Your task to perform on an android device: Open Chrome and go to the settings page Image 0: 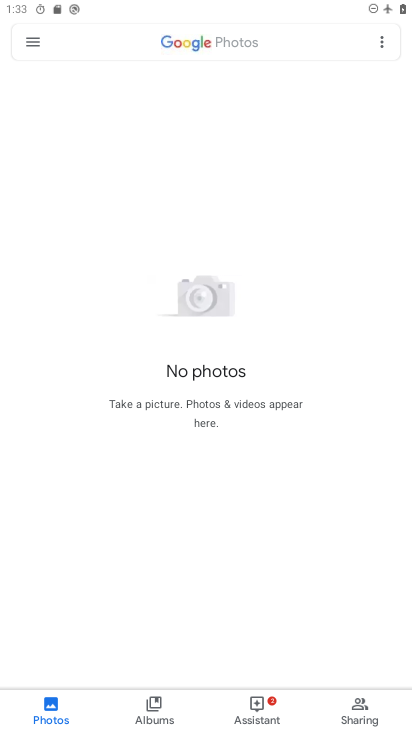
Step 0: drag from (139, 11) to (164, 454)
Your task to perform on an android device: Open Chrome and go to the settings page Image 1: 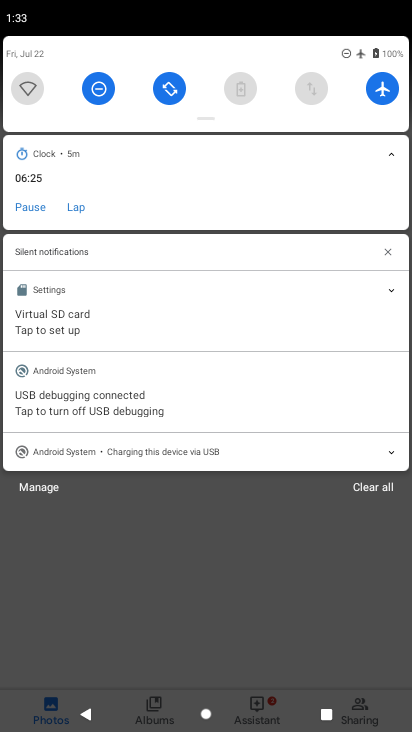
Step 1: press home button
Your task to perform on an android device: Open Chrome and go to the settings page Image 2: 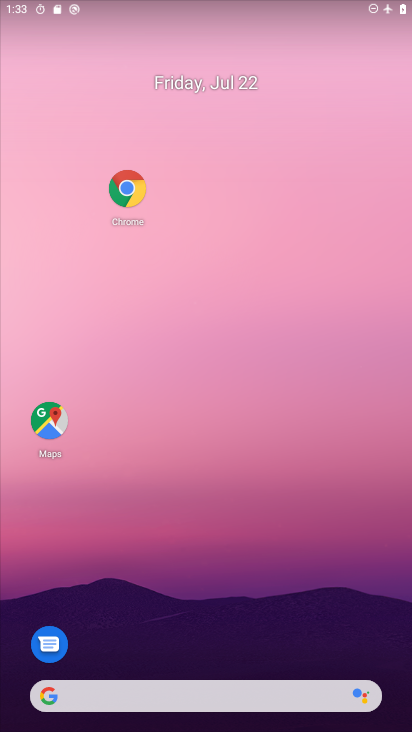
Step 2: click (136, 191)
Your task to perform on an android device: Open Chrome and go to the settings page Image 3: 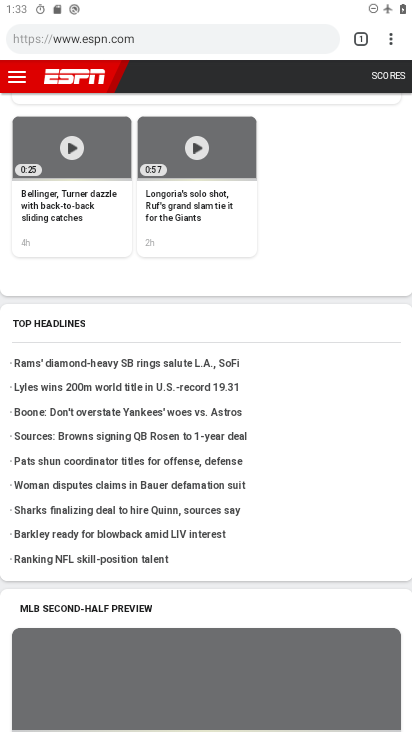
Step 3: click (389, 33)
Your task to perform on an android device: Open Chrome and go to the settings page Image 4: 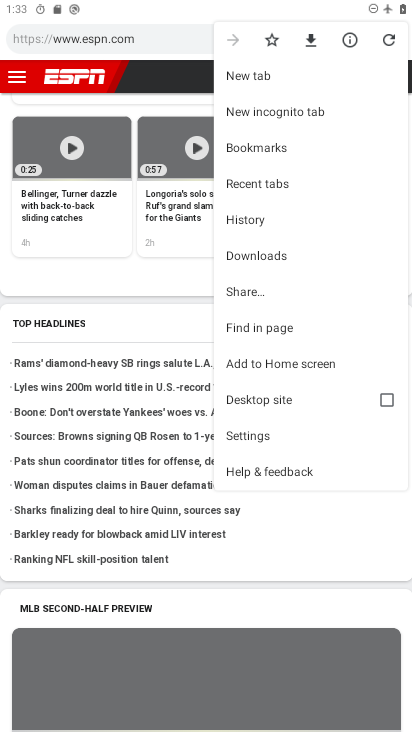
Step 4: click (291, 438)
Your task to perform on an android device: Open Chrome and go to the settings page Image 5: 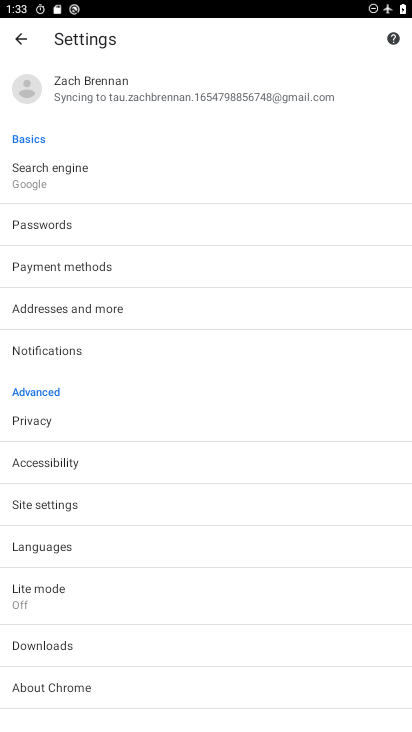
Step 5: task complete